Your task to perform on an android device: Open Yahoo.com Image 0: 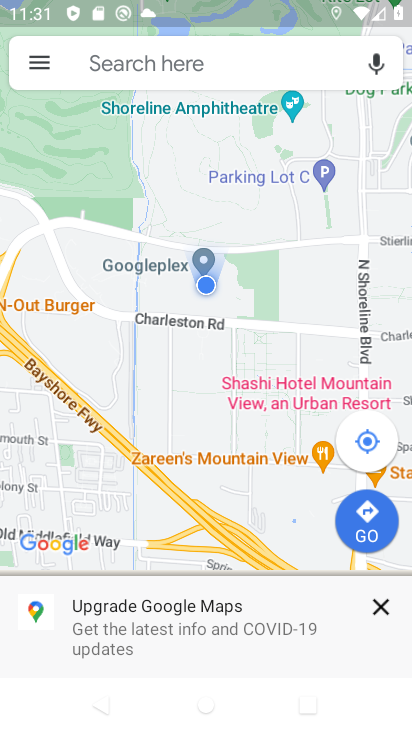
Step 0: press home button
Your task to perform on an android device: Open Yahoo.com Image 1: 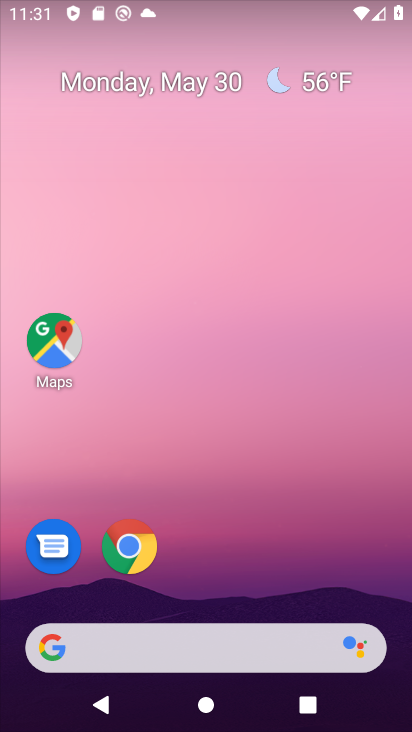
Step 1: click (128, 547)
Your task to perform on an android device: Open Yahoo.com Image 2: 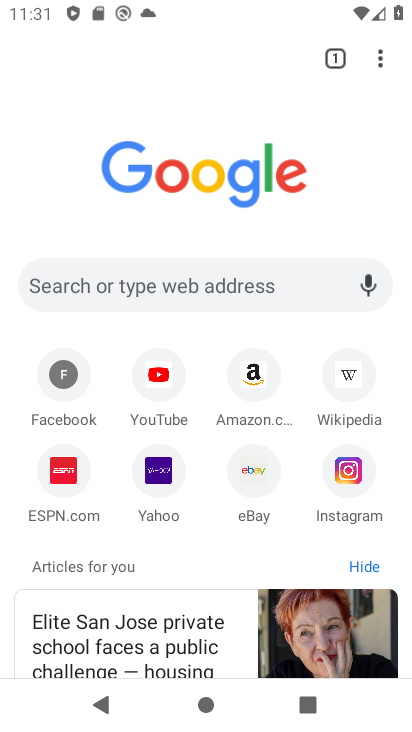
Step 2: click (156, 473)
Your task to perform on an android device: Open Yahoo.com Image 3: 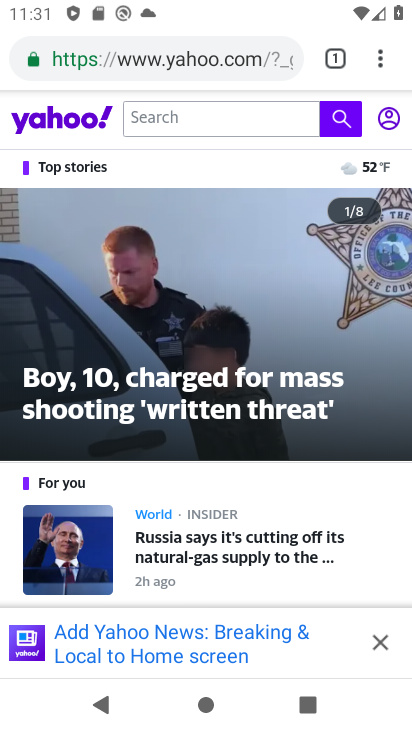
Step 3: task complete